Your task to perform on an android device: Open Google Maps Image 0: 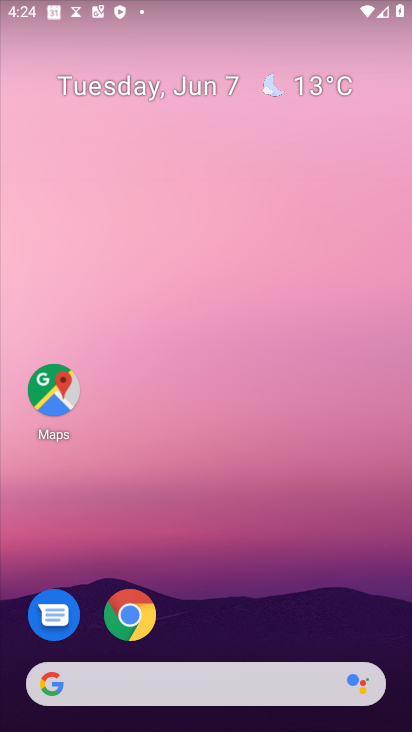
Step 0: drag from (177, 518) to (139, 267)
Your task to perform on an android device: Open Google Maps Image 1: 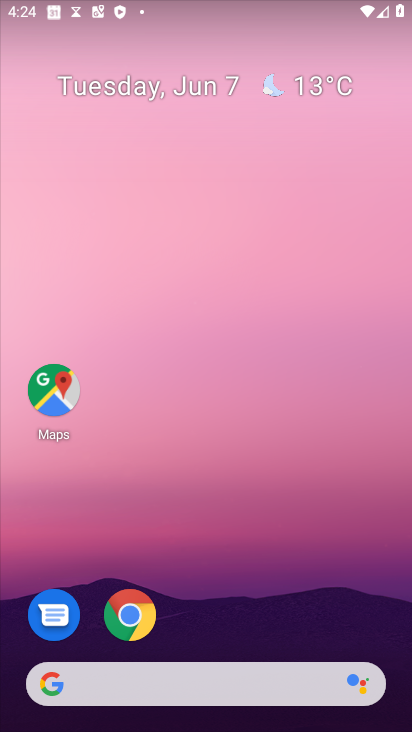
Step 1: drag from (283, 585) to (214, 173)
Your task to perform on an android device: Open Google Maps Image 2: 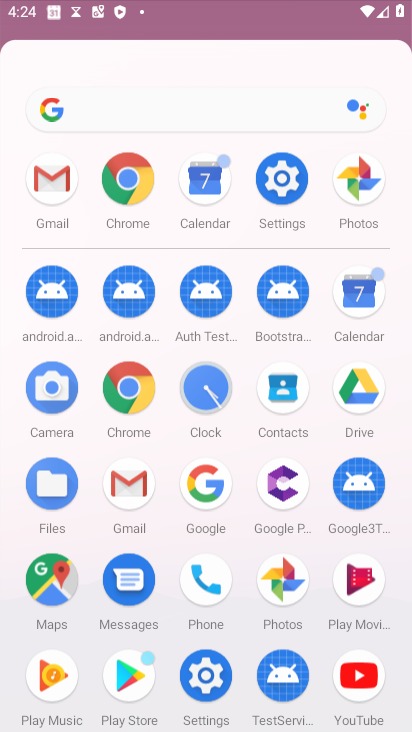
Step 2: drag from (252, 554) to (172, 225)
Your task to perform on an android device: Open Google Maps Image 3: 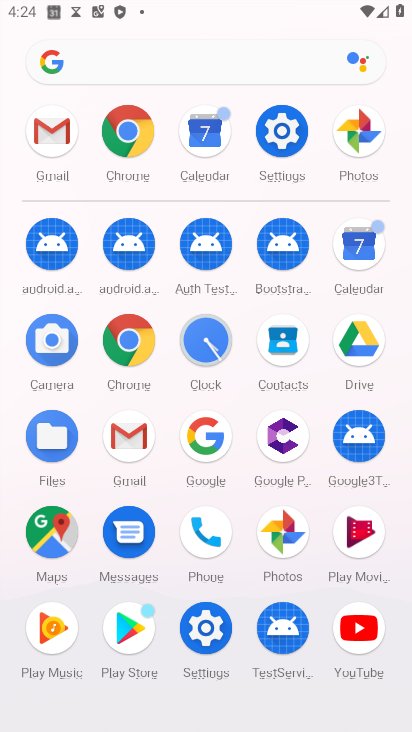
Step 3: click (52, 532)
Your task to perform on an android device: Open Google Maps Image 4: 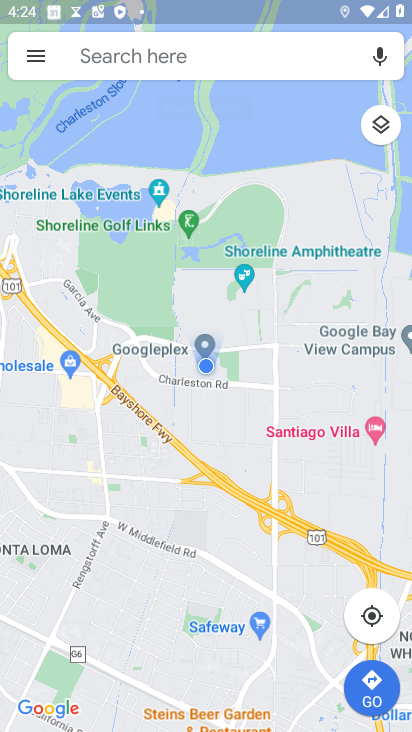
Step 4: task complete